Your task to perform on an android device: change the clock display to show seconds Image 0: 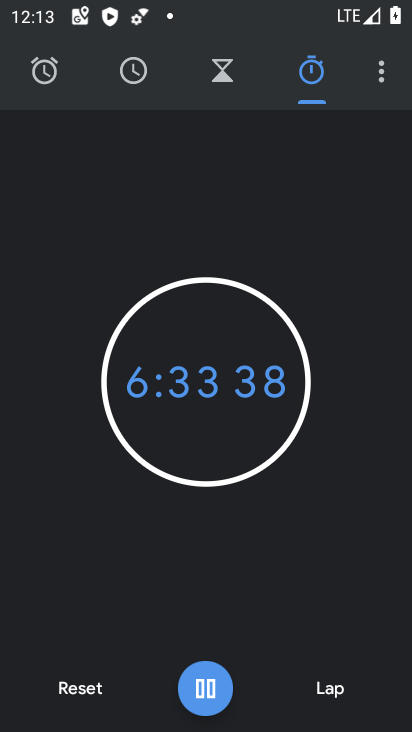
Step 0: drag from (375, 70) to (268, 146)
Your task to perform on an android device: change the clock display to show seconds Image 1: 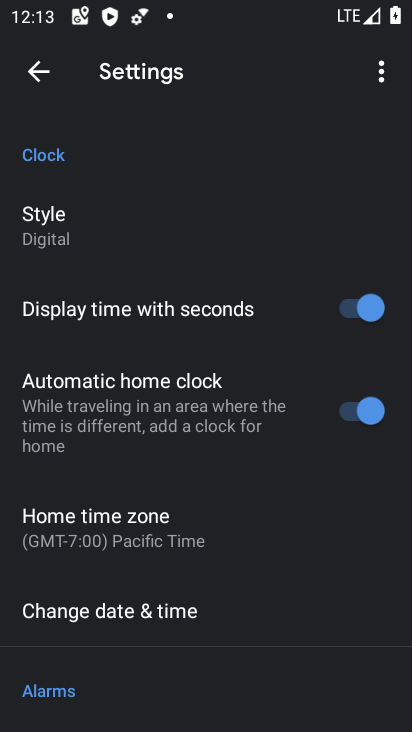
Step 1: task complete